Your task to perform on an android device: check android version Image 0: 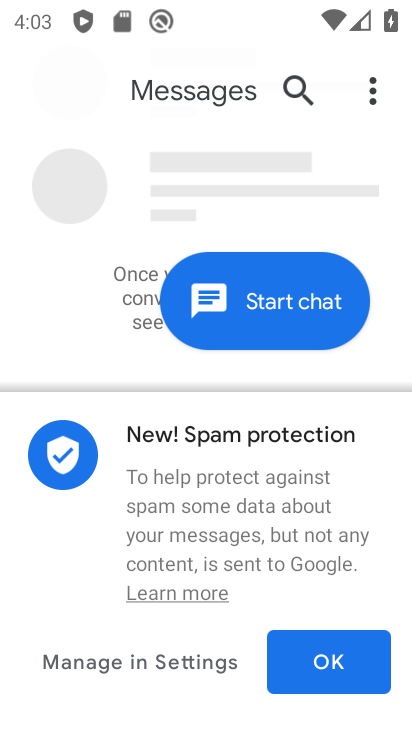
Step 0: press back button
Your task to perform on an android device: check android version Image 1: 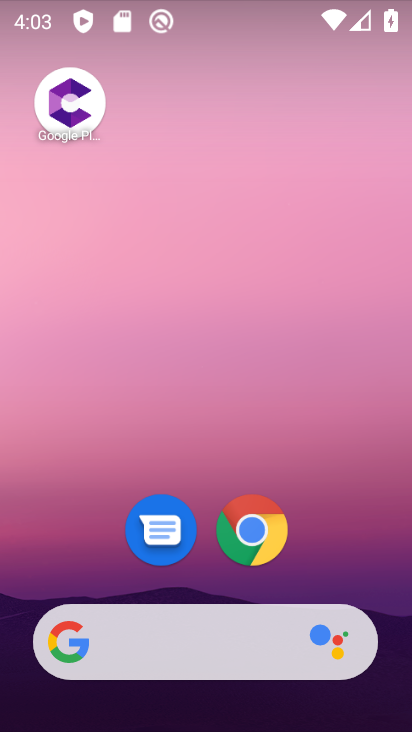
Step 1: drag from (215, 591) to (322, 36)
Your task to perform on an android device: check android version Image 2: 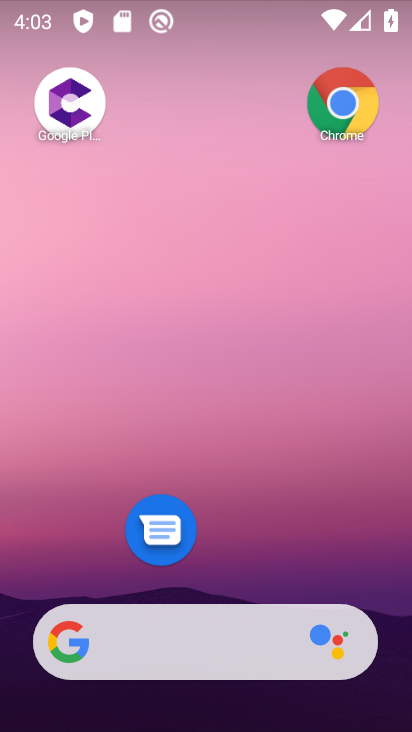
Step 2: drag from (199, 520) to (284, 122)
Your task to perform on an android device: check android version Image 3: 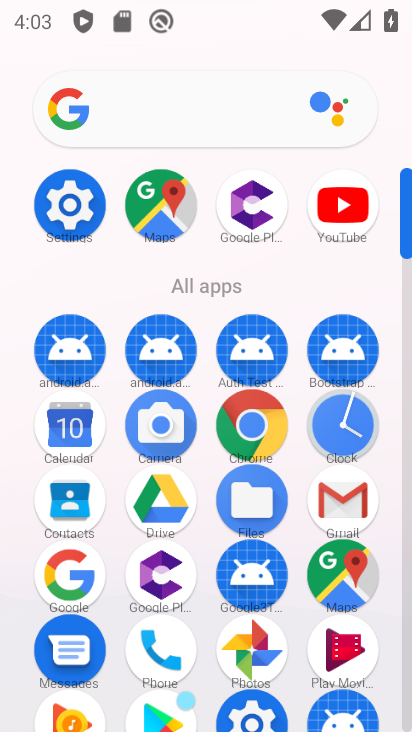
Step 3: click (72, 196)
Your task to perform on an android device: check android version Image 4: 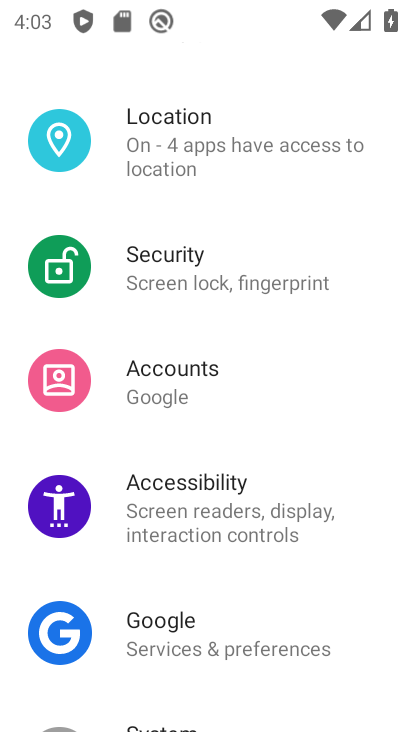
Step 4: drag from (208, 644) to (354, 86)
Your task to perform on an android device: check android version Image 5: 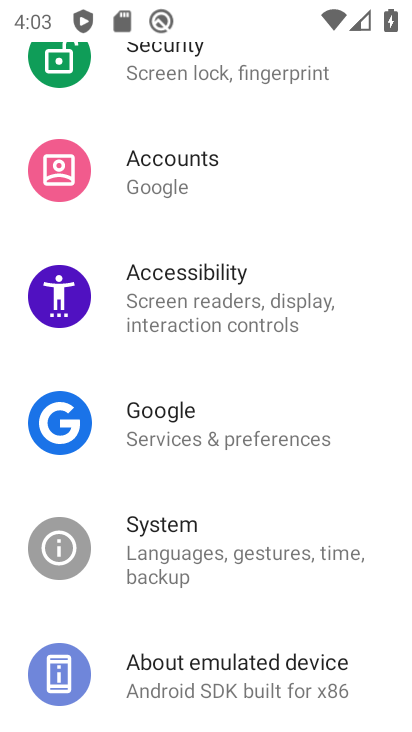
Step 5: drag from (170, 662) to (272, 99)
Your task to perform on an android device: check android version Image 6: 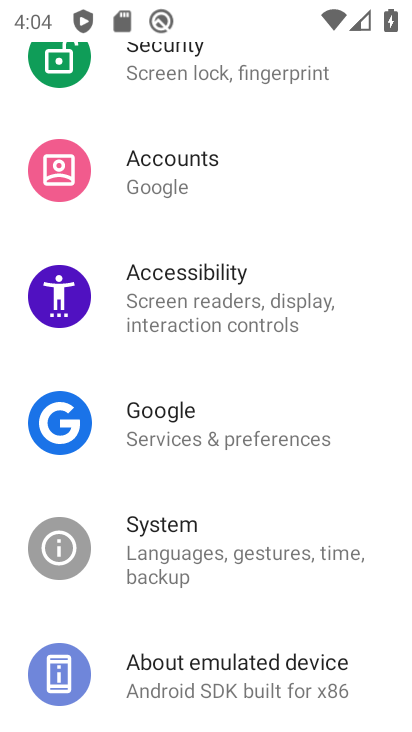
Step 6: click (196, 666)
Your task to perform on an android device: check android version Image 7: 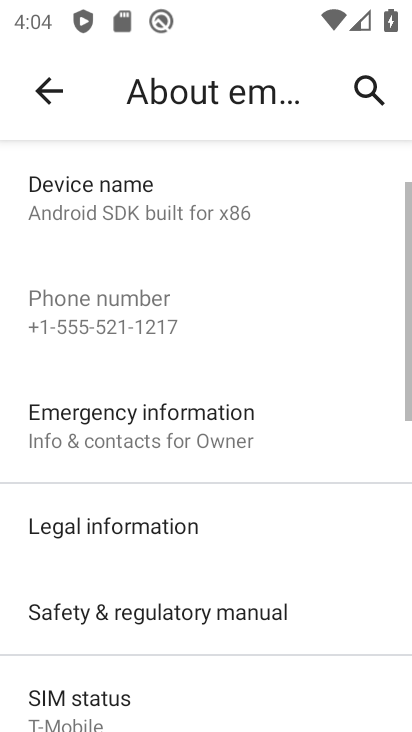
Step 7: drag from (154, 692) to (301, 112)
Your task to perform on an android device: check android version Image 8: 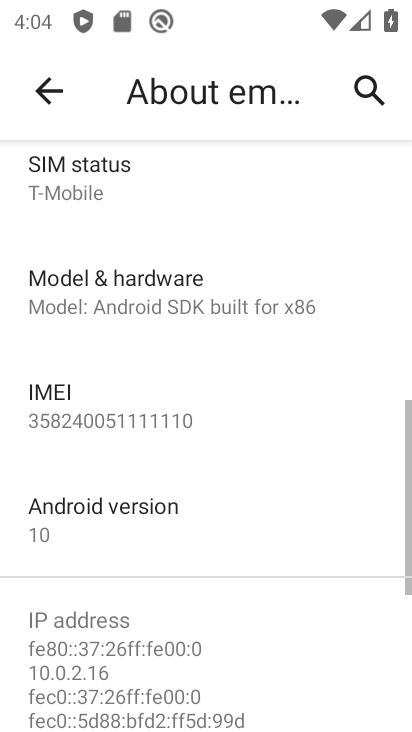
Step 8: click (80, 532)
Your task to perform on an android device: check android version Image 9: 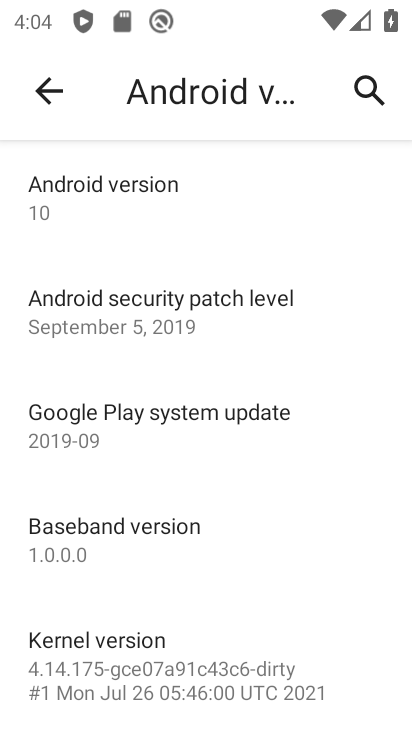
Step 9: click (138, 191)
Your task to perform on an android device: check android version Image 10: 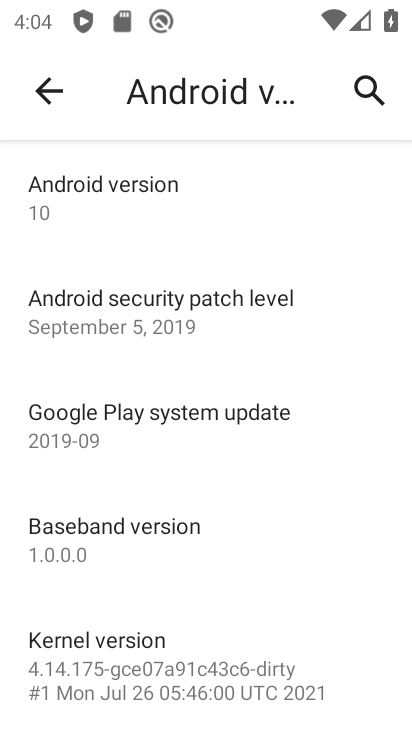
Step 10: click (115, 182)
Your task to perform on an android device: check android version Image 11: 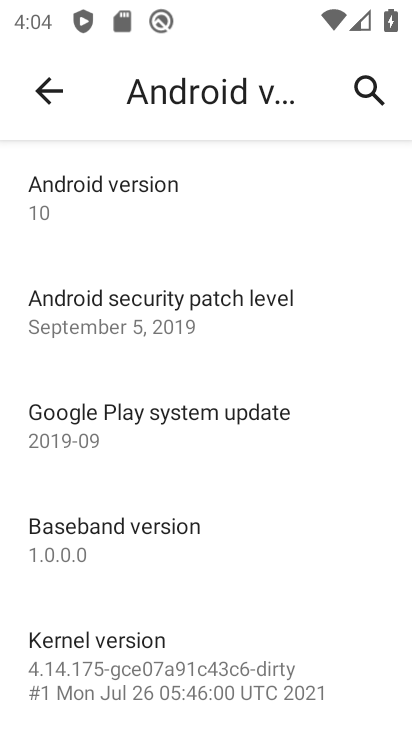
Step 11: task complete